Your task to perform on an android device: What's the latest video from GameSpot? Image 0: 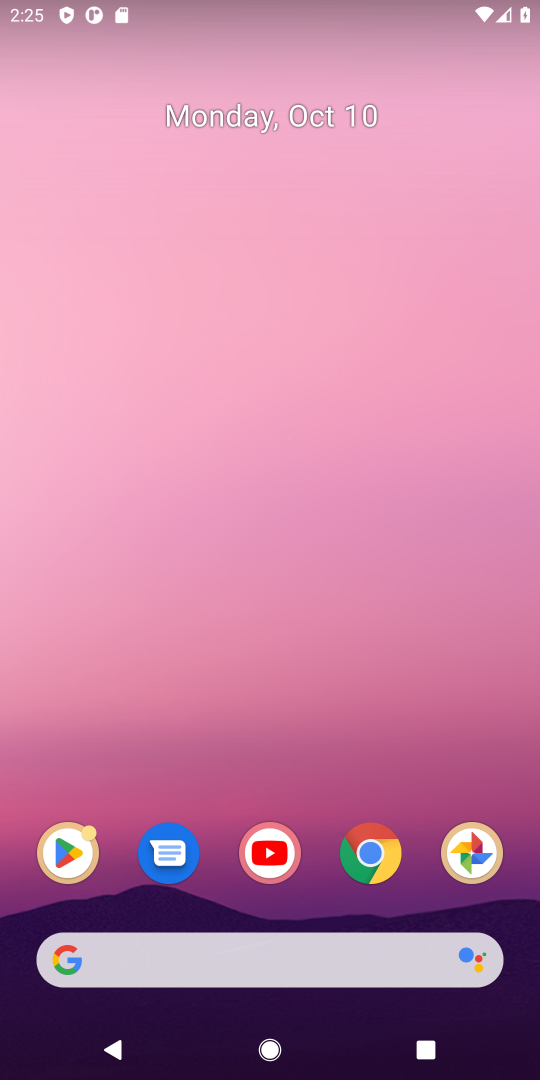
Step 0: click (269, 869)
Your task to perform on an android device: What's the latest video from GameSpot? Image 1: 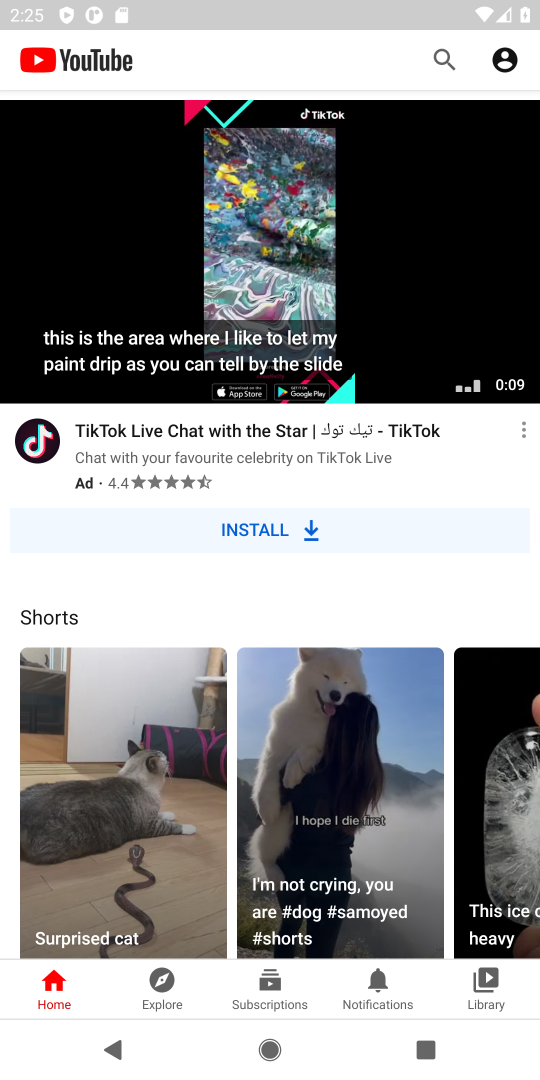
Step 1: click (451, 55)
Your task to perform on an android device: What's the latest video from GameSpot? Image 2: 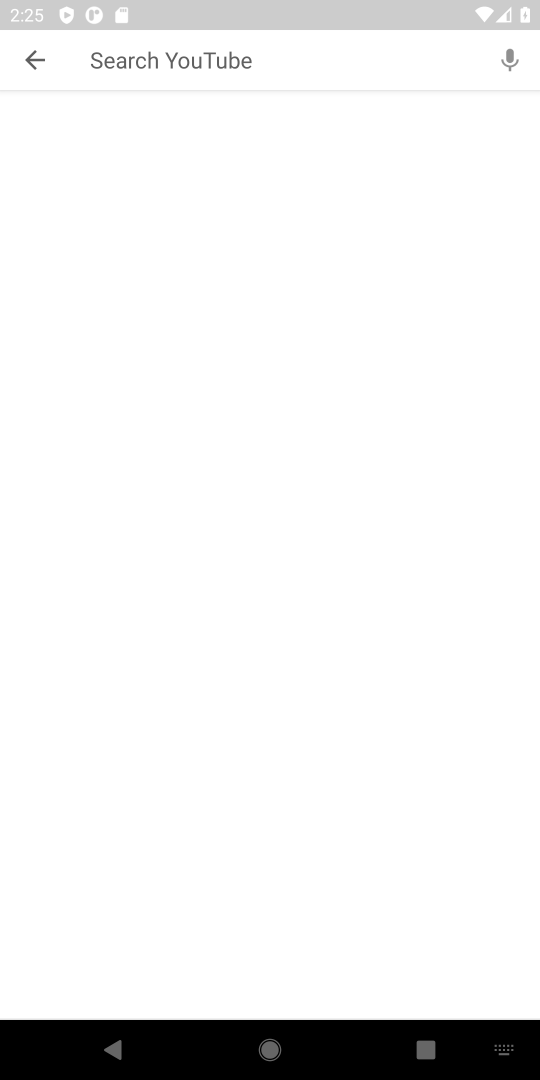
Step 2: type "gamespot"
Your task to perform on an android device: What's the latest video from GameSpot? Image 3: 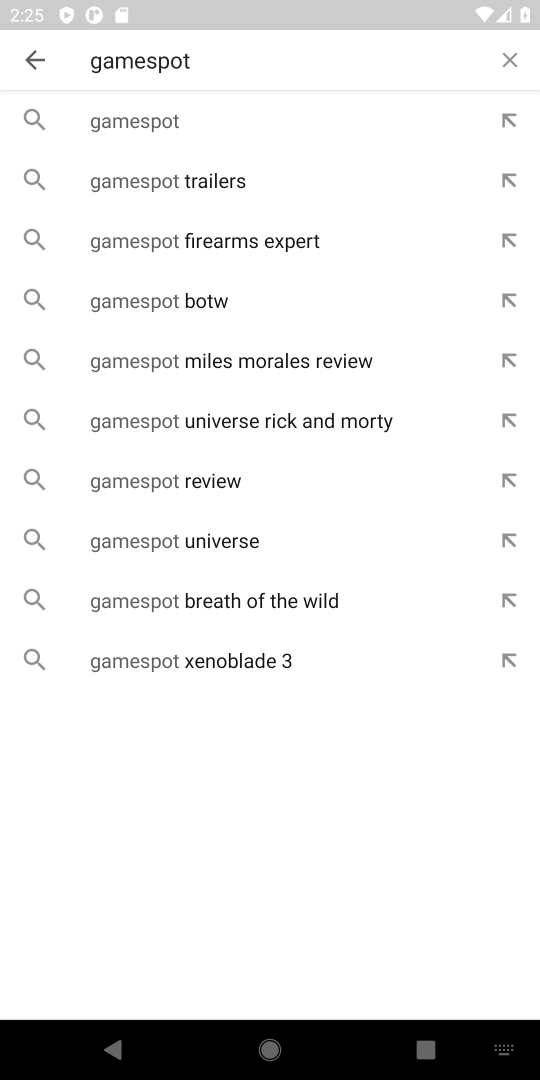
Step 3: click (158, 112)
Your task to perform on an android device: What's the latest video from GameSpot? Image 4: 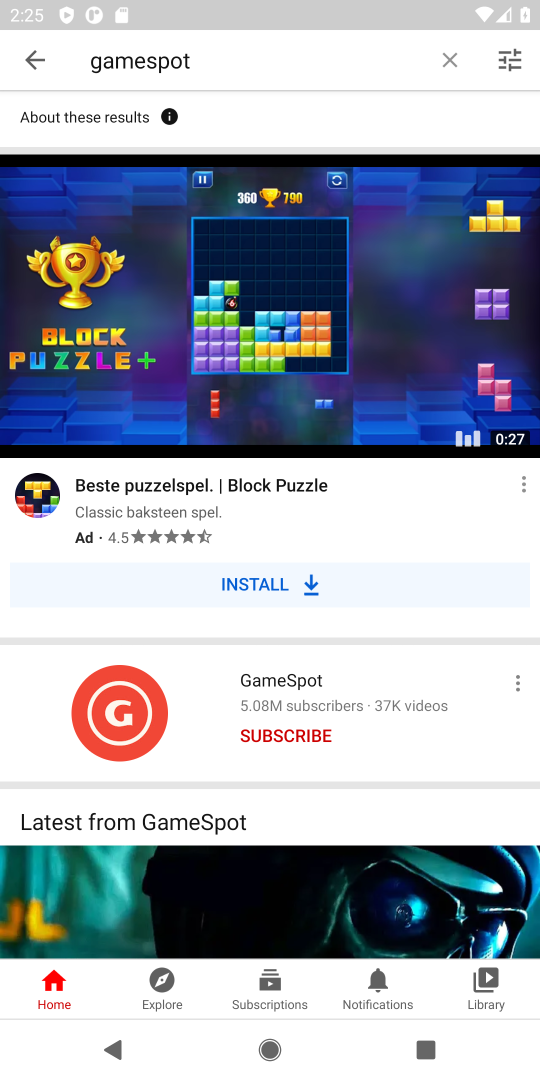
Step 4: click (344, 695)
Your task to perform on an android device: What's the latest video from GameSpot? Image 5: 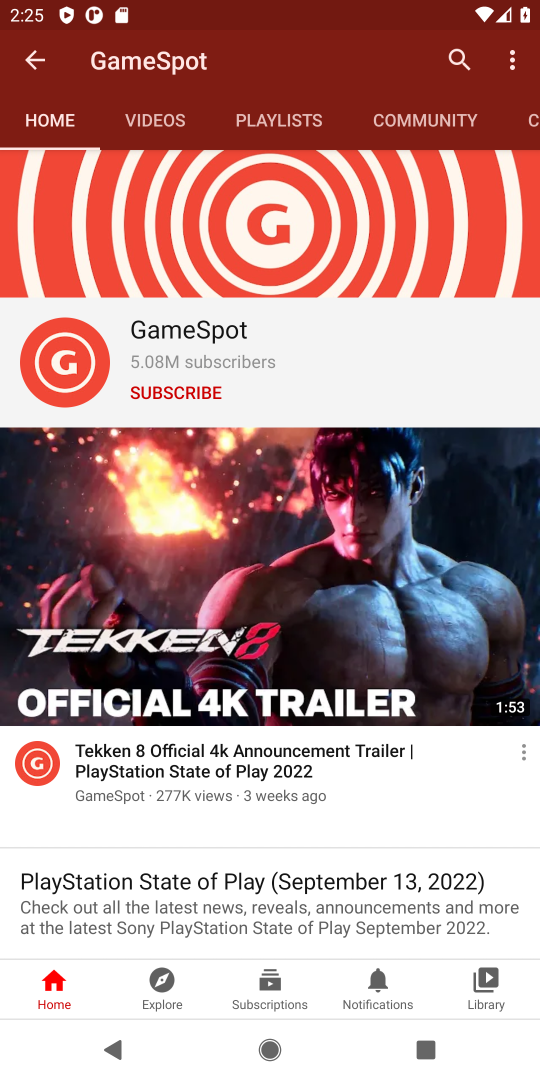
Step 5: click (156, 133)
Your task to perform on an android device: What's the latest video from GameSpot? Image 6: 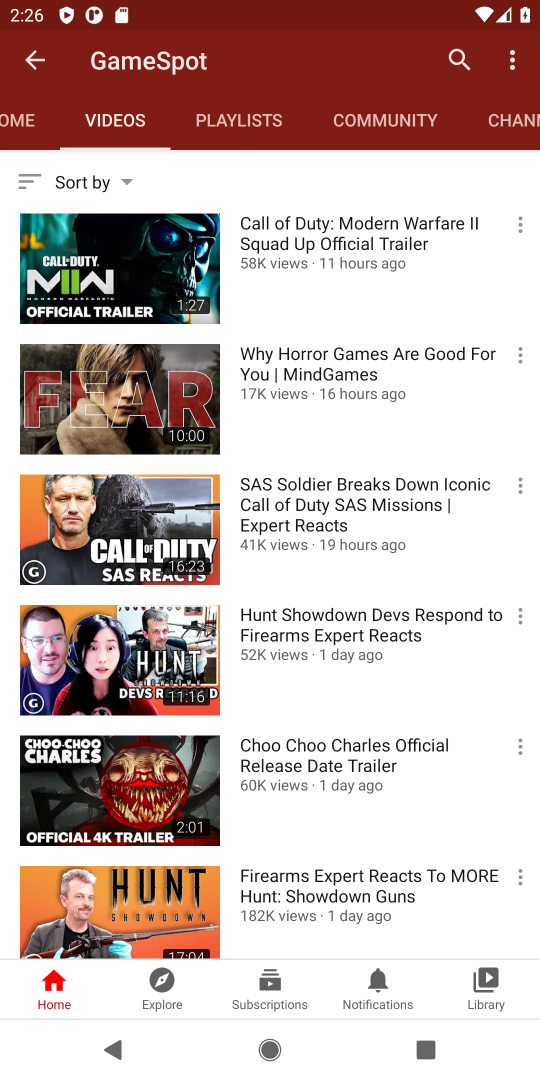
Step 6: click (443, 258)
Your task to perform on an android device: What's the latest video from GameSpot? Image 7: 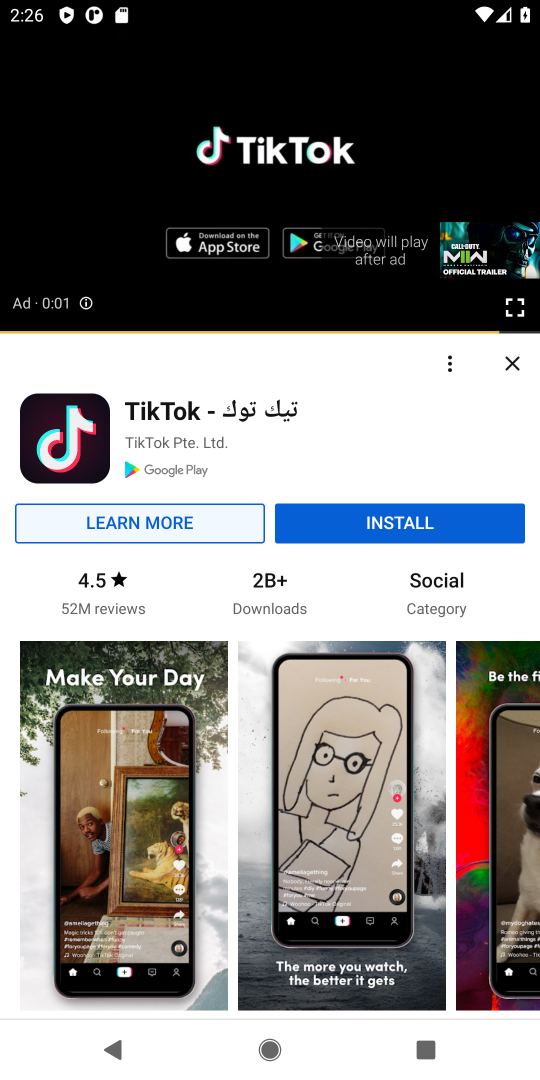
Step 7: task complete